Your task to perform on an android device: open a new tab in the chrome app Image 0: 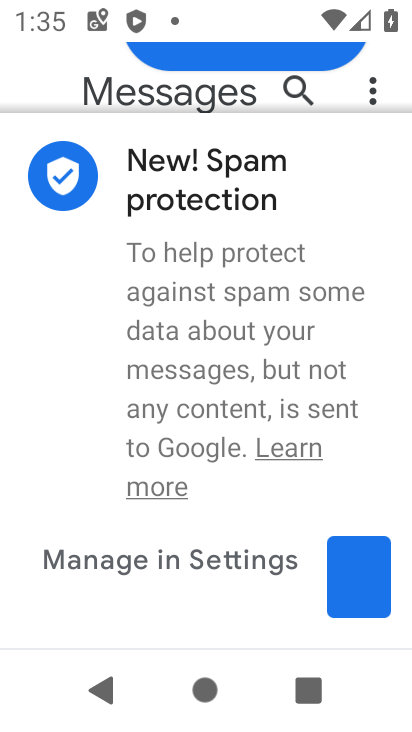
Step 0: press home button
Your task to perform on an android device: open a new tab in the chrome app Image 1: 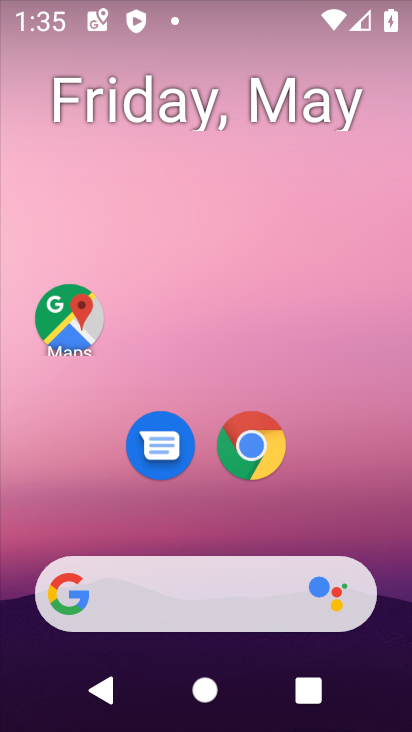
Step 1: click (255, 445)
Your task to perform on an android device: open a new tab in the chrome app Image 2: 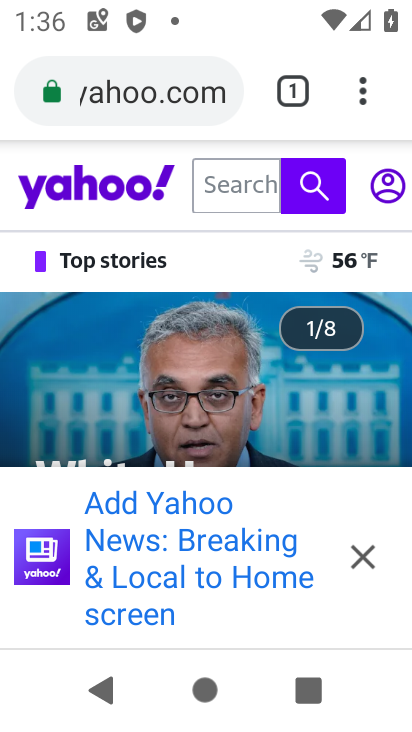
Step 2: click (367, 98)
Your task to perform on an android device: open a new tab in the chrome app Image 3: 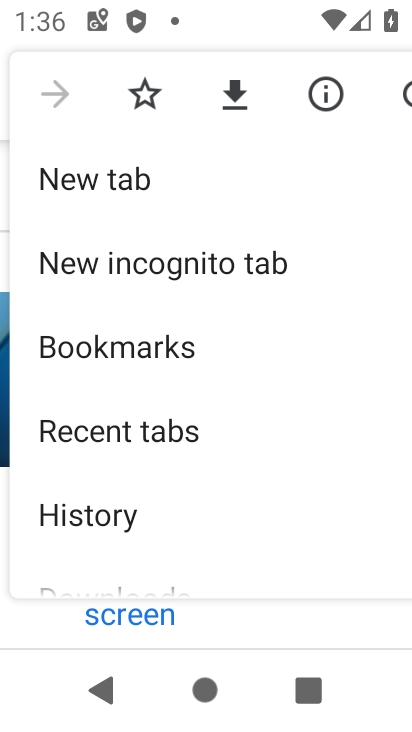
Step 3: click (78, 179)
Your task to perform on an android device: open a new tab in the chrome app Image 4: 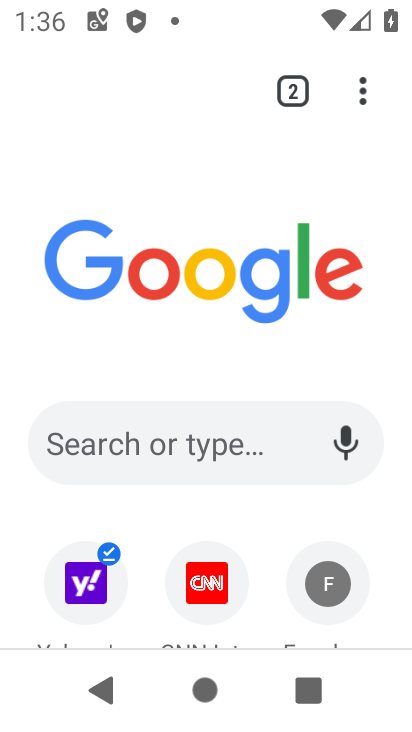
Step 4: task complete